Your task to perform on an android device: Search for Italian restaurants on Maps Image 0: 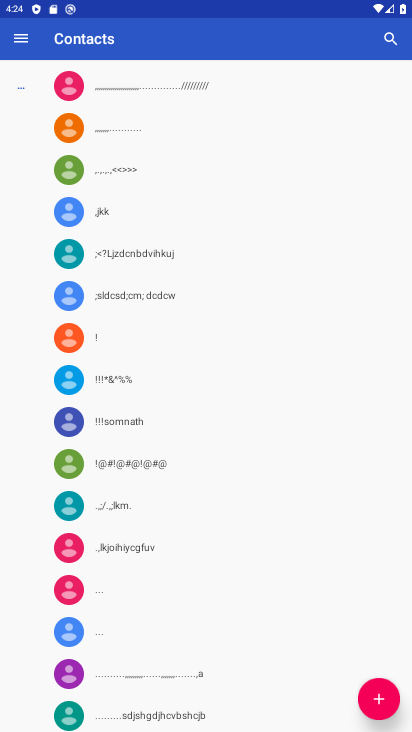
Step 0: press home button
Your task to perform on an android device: Search for Italian restaurants on Maps Image 1: 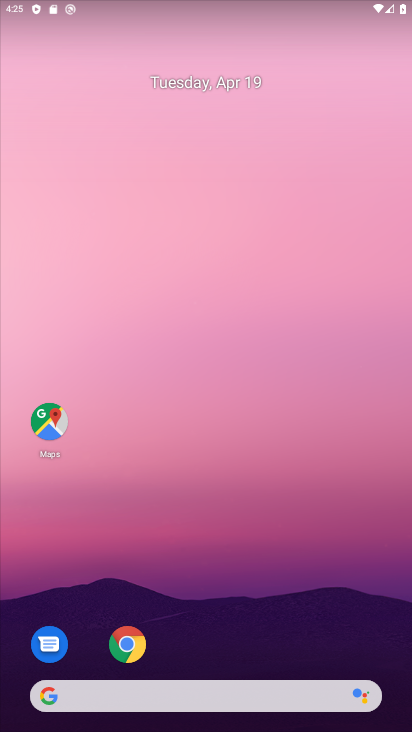
Step 1: click (42, 416)
Your task to perform on an android device: Search for Italian restaurants on Maps Image 2: 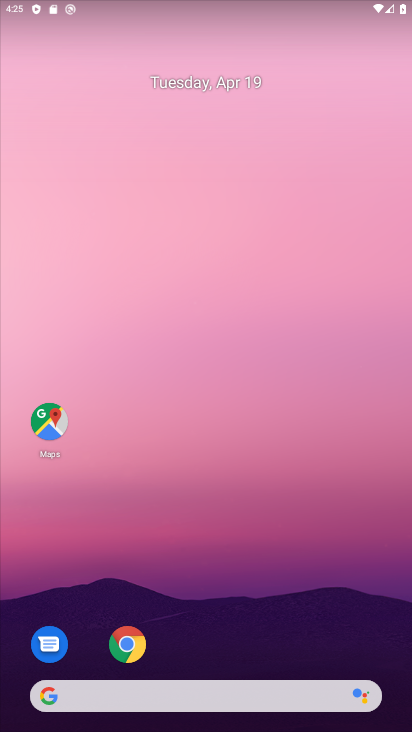
Step 2: click (42, 416)
Your task to perform on an android device: Search for Italian restaurants on Maps Image 3: 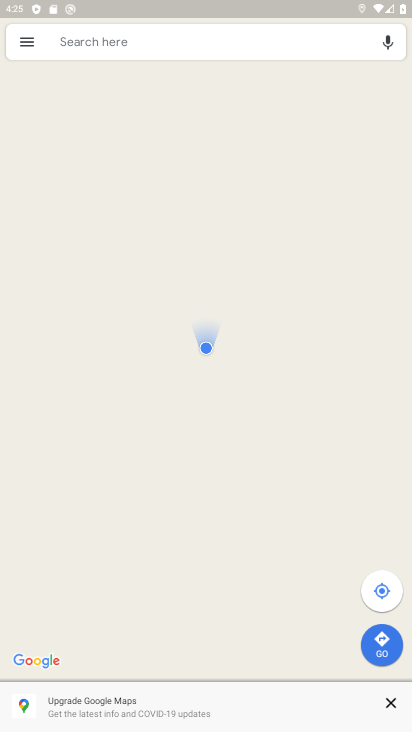
Step 3: click (217, 45)
Your task to perform on an android device: Search for Italian restaurants on Maps Image 4: 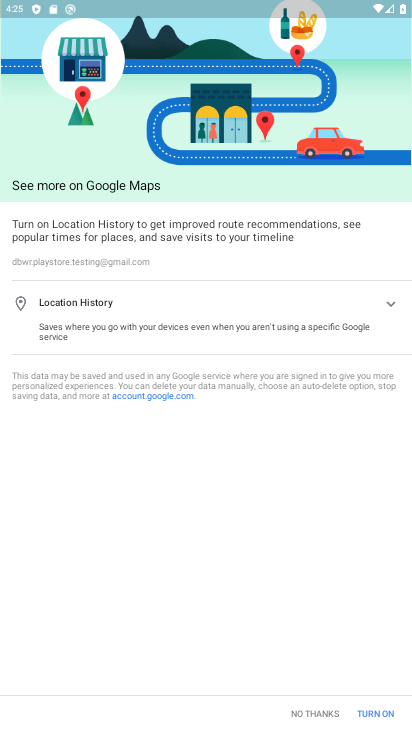
Step 4: press back button
Your task to perform on an android device: Search for Italian restaurants on Maps Image 5: 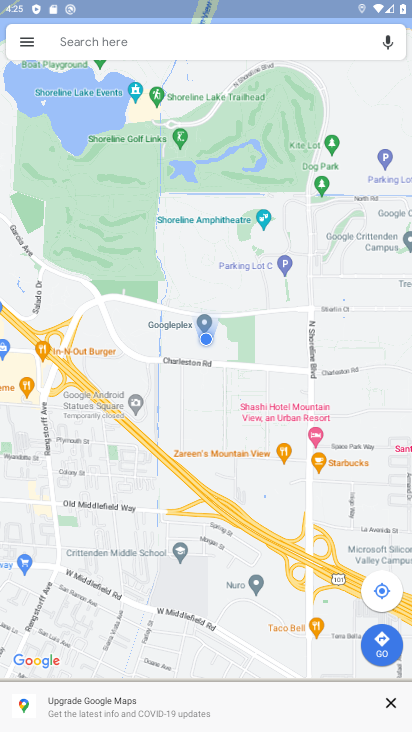
Step 5: click (185, 45)
Your task to perform on an android device: Search for Italian restaurants on Maps Image 6: 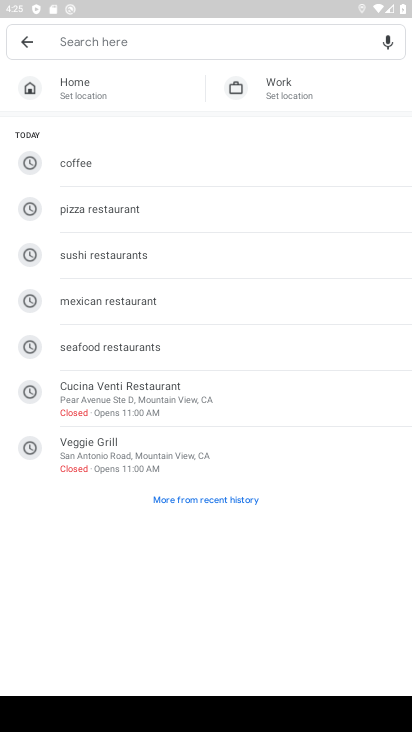
Step 6: type "italian restaurant"
Your task to perform on an android device: Search for Italian restaurants on Maps Image 7: 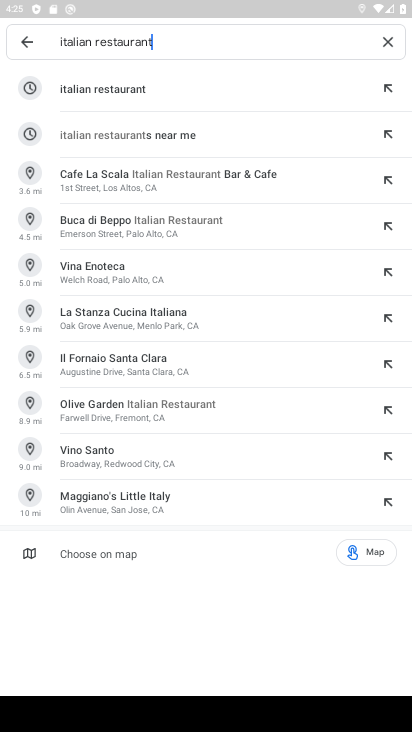
Step 7: click (140, 89)
Your task to perform on an android device: Search for Italian restaurants on Maps Image 8: 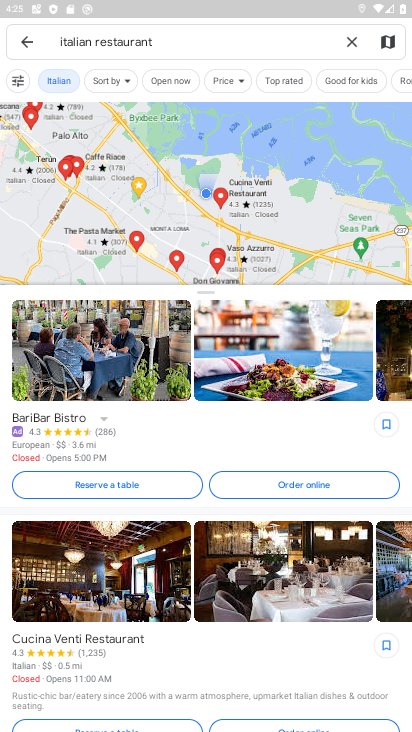
Step 8: task complete